Your task to perform on an android device: turn off priority inbox in the gmail app Image 0: 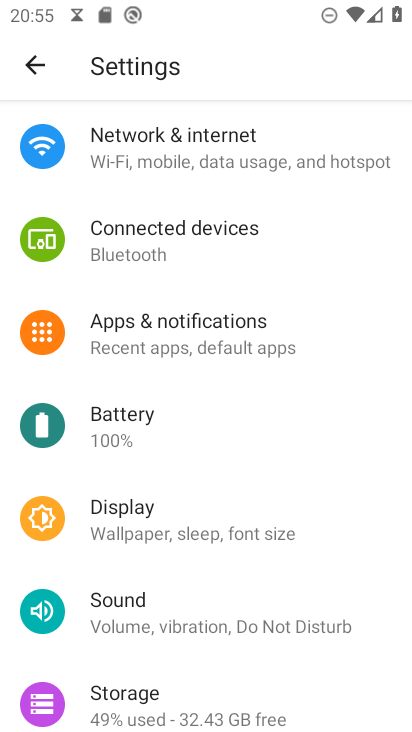
Step 0: press home button
Your task to perform on an android device: turn off priority inbox in the gmail app Image 1: 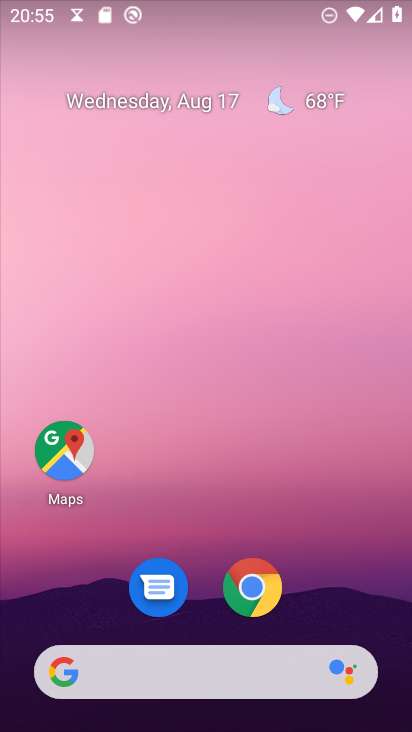
Step 1: drag from (21, 704) to (270, 163)
Your task to perform on an android device: turn off priority inbox in the gmail app Image 2: 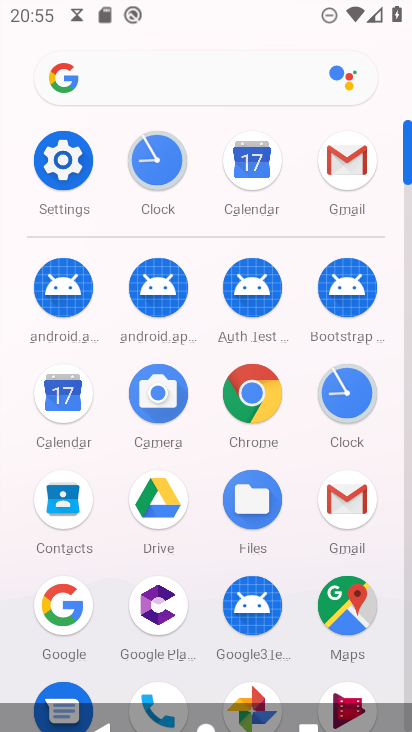
Step 2: click (342, 493)
Your task to perform on an android device: turn off priority inbox in the gmail app Image 3: 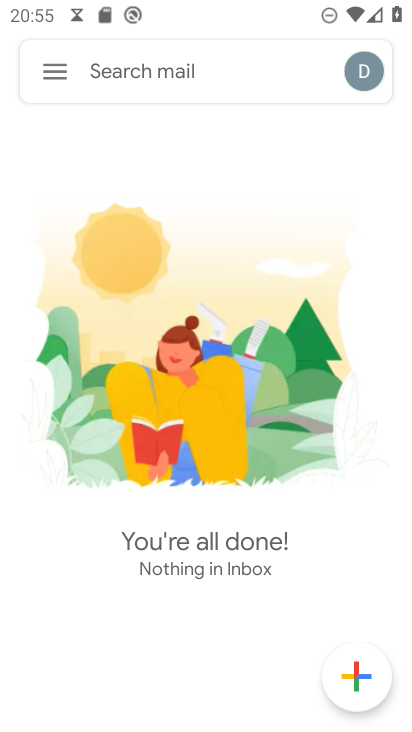
Step 3: click (55, 69)
Your task to perform on an android device: turn off priority inbox in the gmail app Image 4: 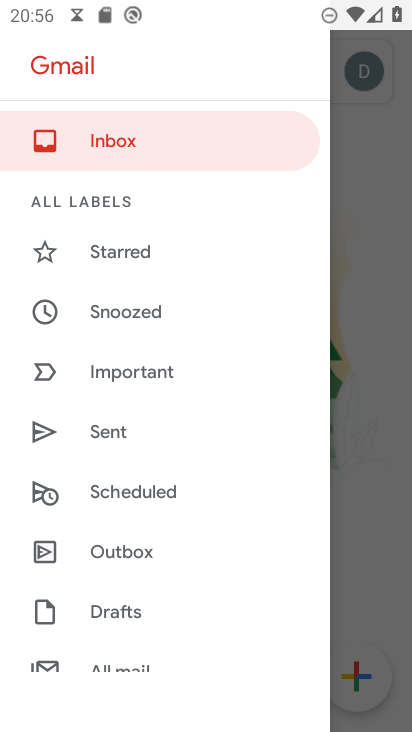
Step 4: drag from (223, 644) to (316, 285)
Your task to perform on an android device: turn off priority inbox in the gmail app Image 5: 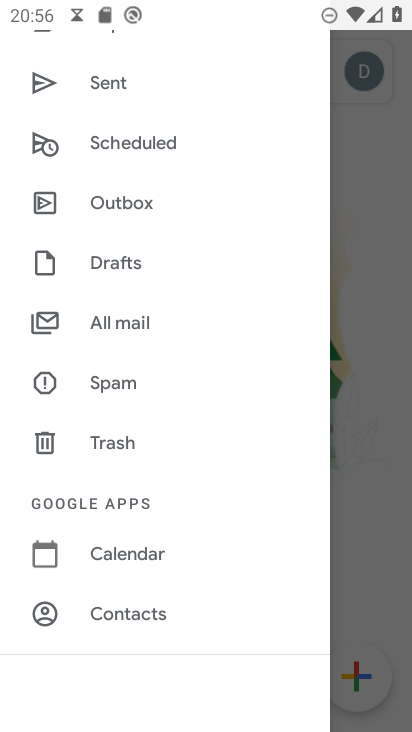
Step 5: drag from (257, 642) to (252, 295)
Your task to perform on an android device: turn off priority inbox in the gmail app Image 6: 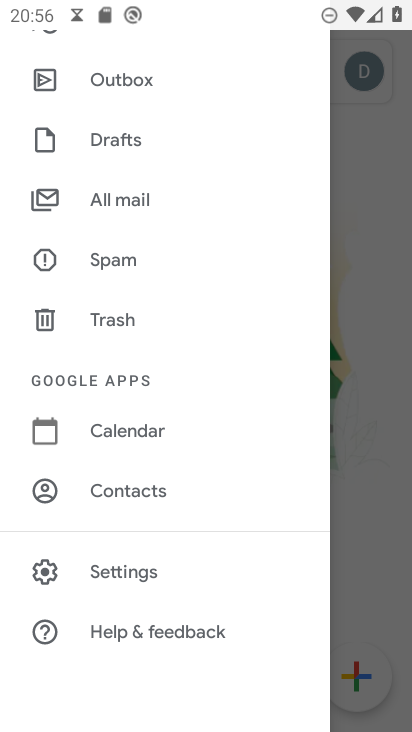
Step 6: click (97, 566)
Your task to perform on an android device: turn off priority inbox in the gmail app Image 7: 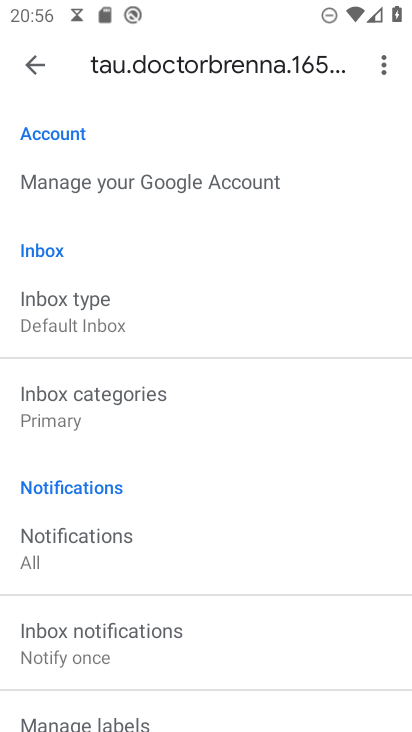
Step 7: click (84, 304)
Your task to perform on an android device: turn off priority inbox in the gmail app Image 8: 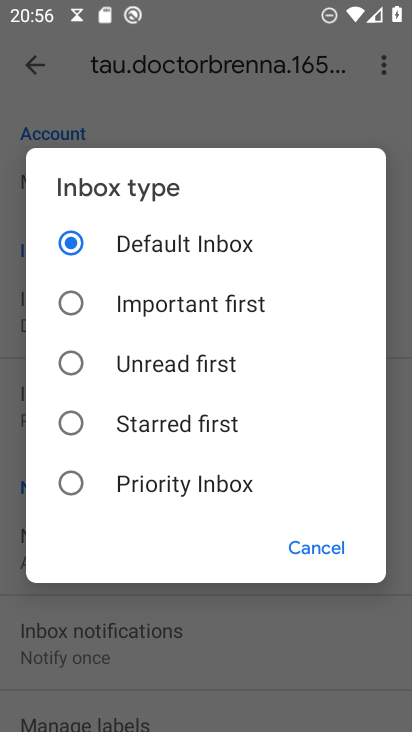
Step 8: click (66, 490)
Your task to perform on an android device: turn off priority inbox in the gmail app Image 9: 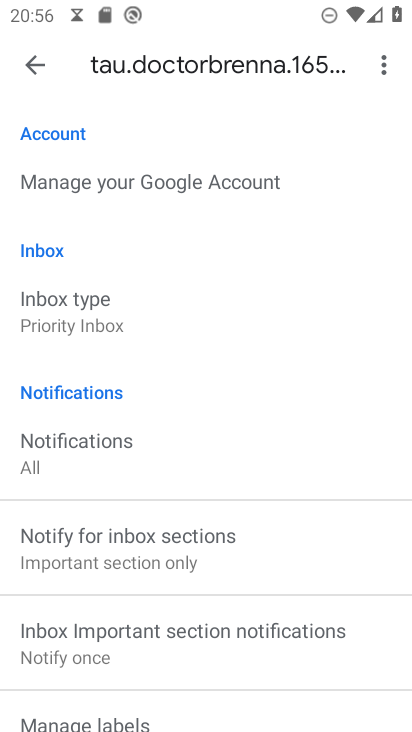
Step 9: task complete